Your task to perform on an android device: open app "ZOOM Cloud Meetings" (install if not already installed) Image 0: 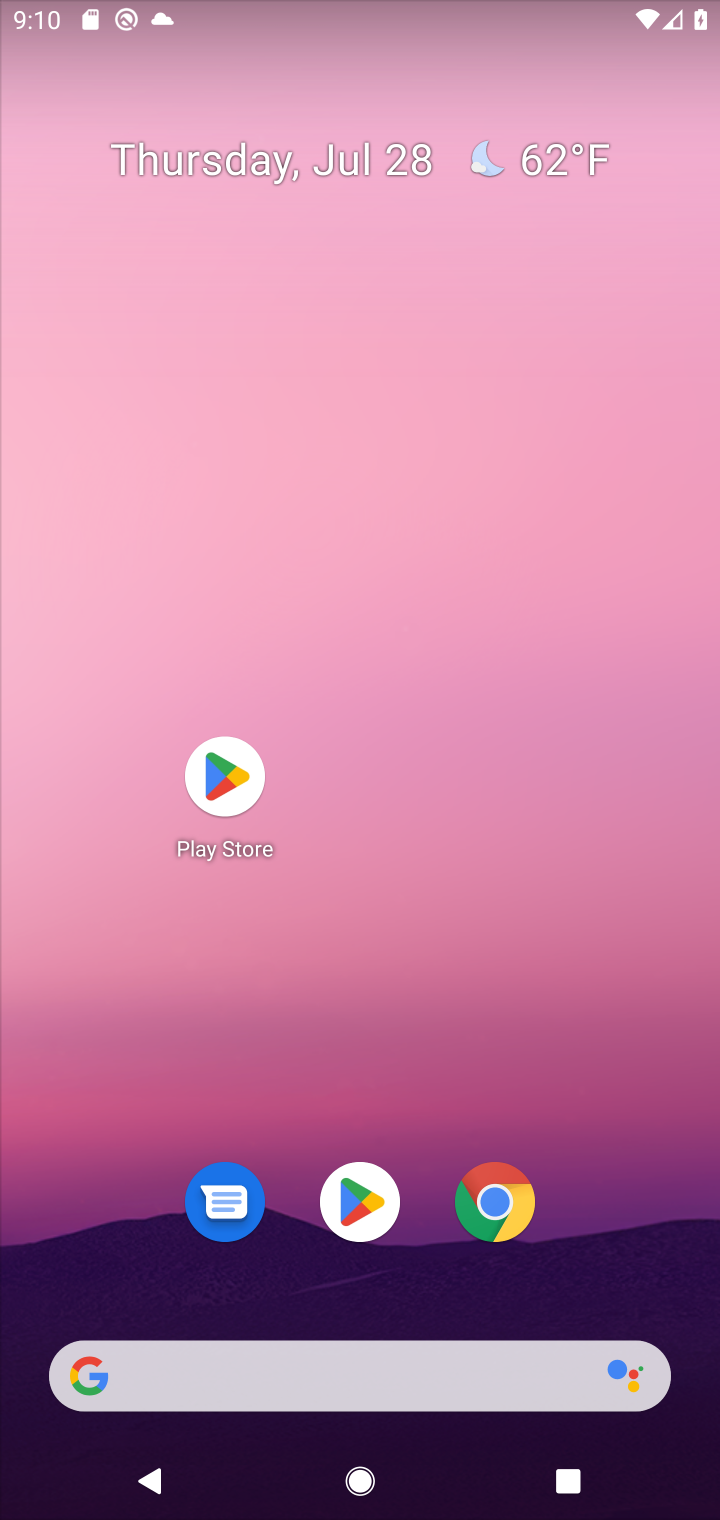
Step 0: click (349, 1199)
Your task to perform on an android device: open app "ZOOM Cloud Meetings" (install if not already installed) Image 1: 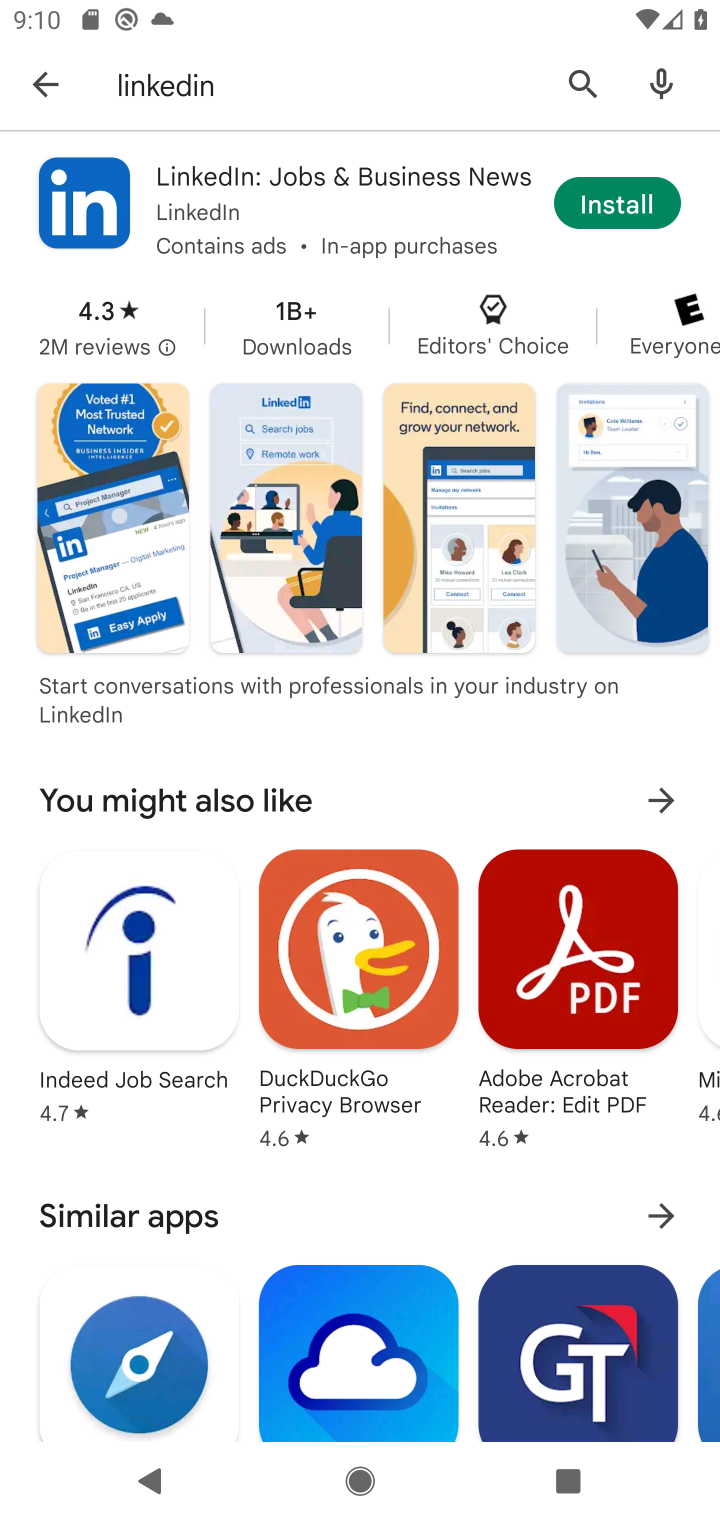
Step 1: click (578, 80)
Your task to perform on an android device: open app "ZOOM Cloud Meetings" (install if not already installed) Image 2: 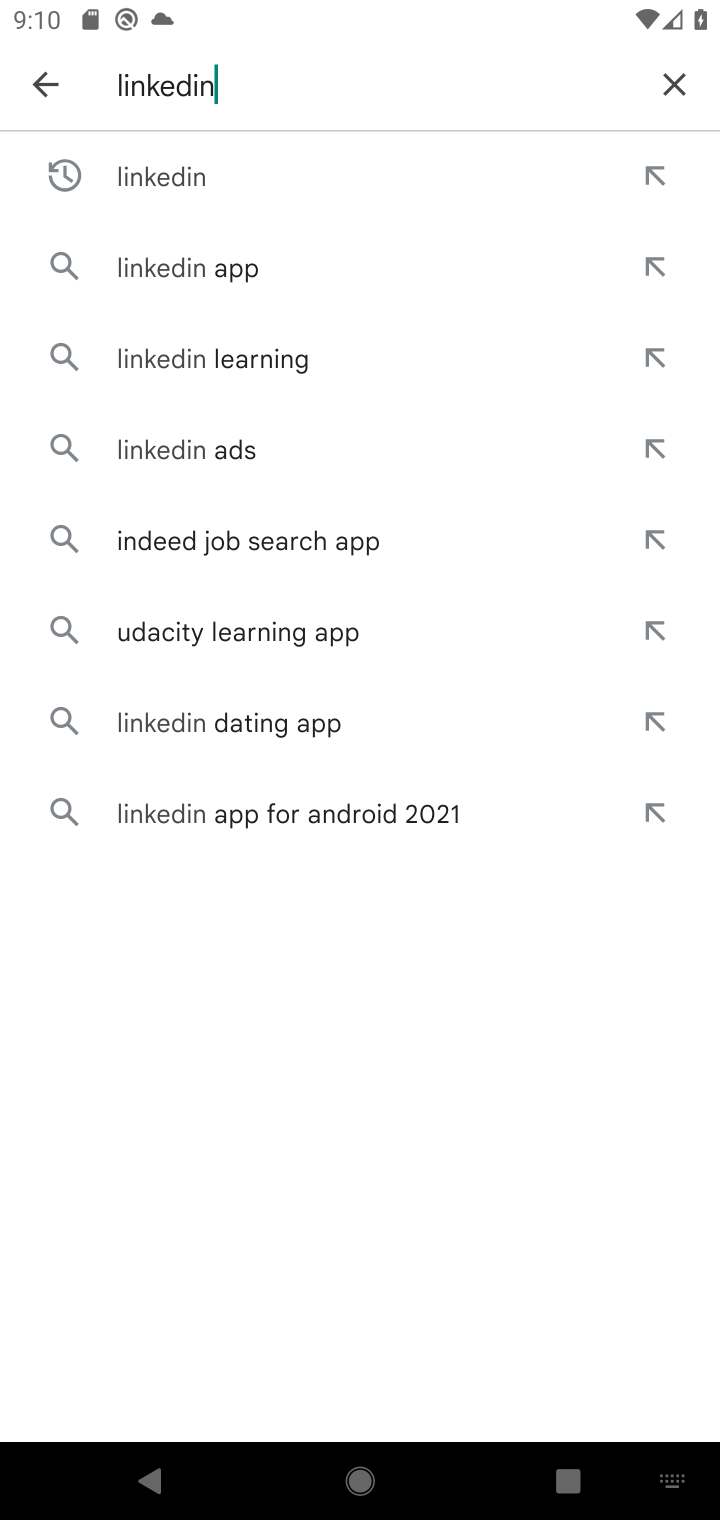
Step 2: click (673, 89)
Your task to perform on an android device: open app "ZOOM Cloud Meetings" (install if not already installed) Image 3: 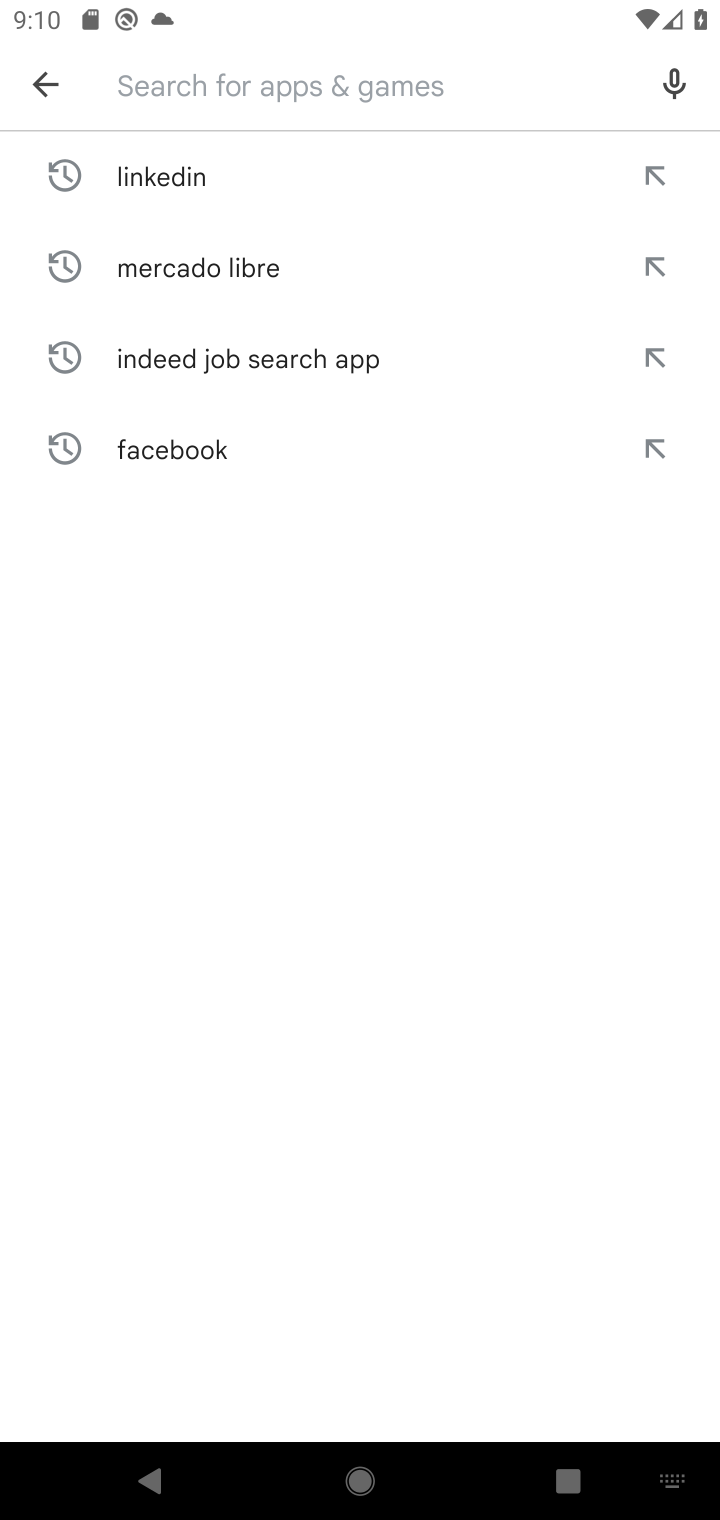
Step 3: click (144, 77)
Your task to perform on an android device: open app "ZOOM Cloud Meetings" (install if not already installed) Image 4: 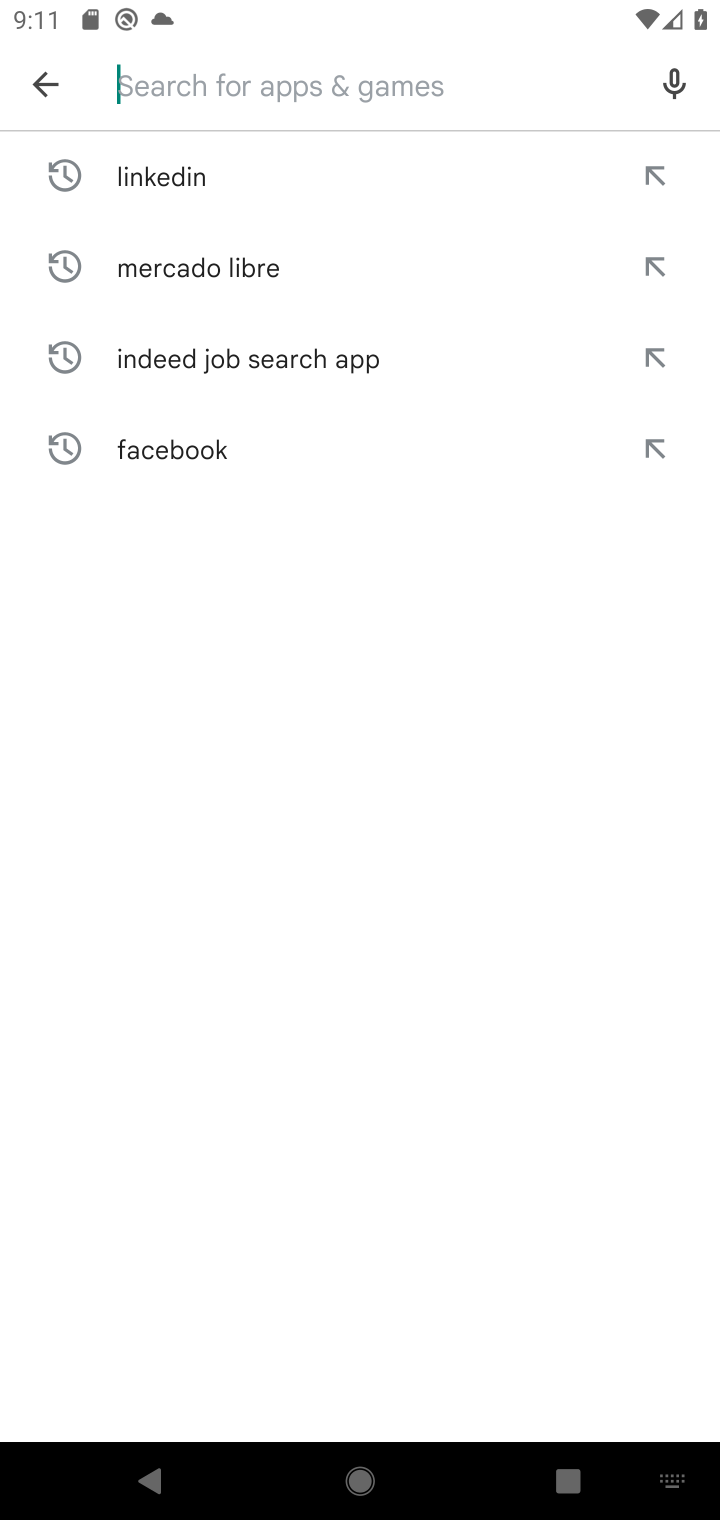
Step 4: type "zoom cloud meetings"
Your task to perform on an android device: open app "ZOOM Cloud Meetings" (install if not already installed) Image 5: 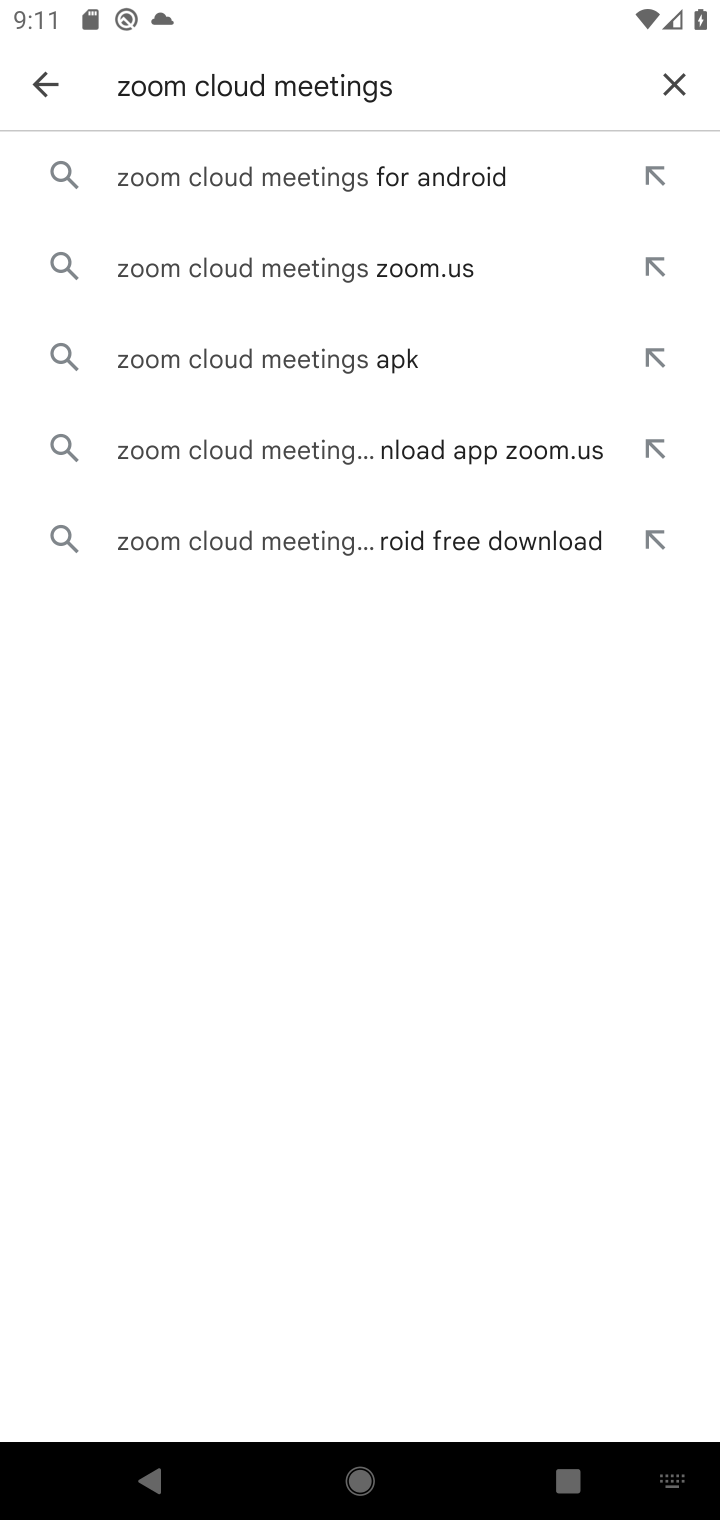
Step 5: click (298, 175)
Your task to perform on an android device: open app "ZOOM Cloud Meetings" (install if not already installed) Image 6: 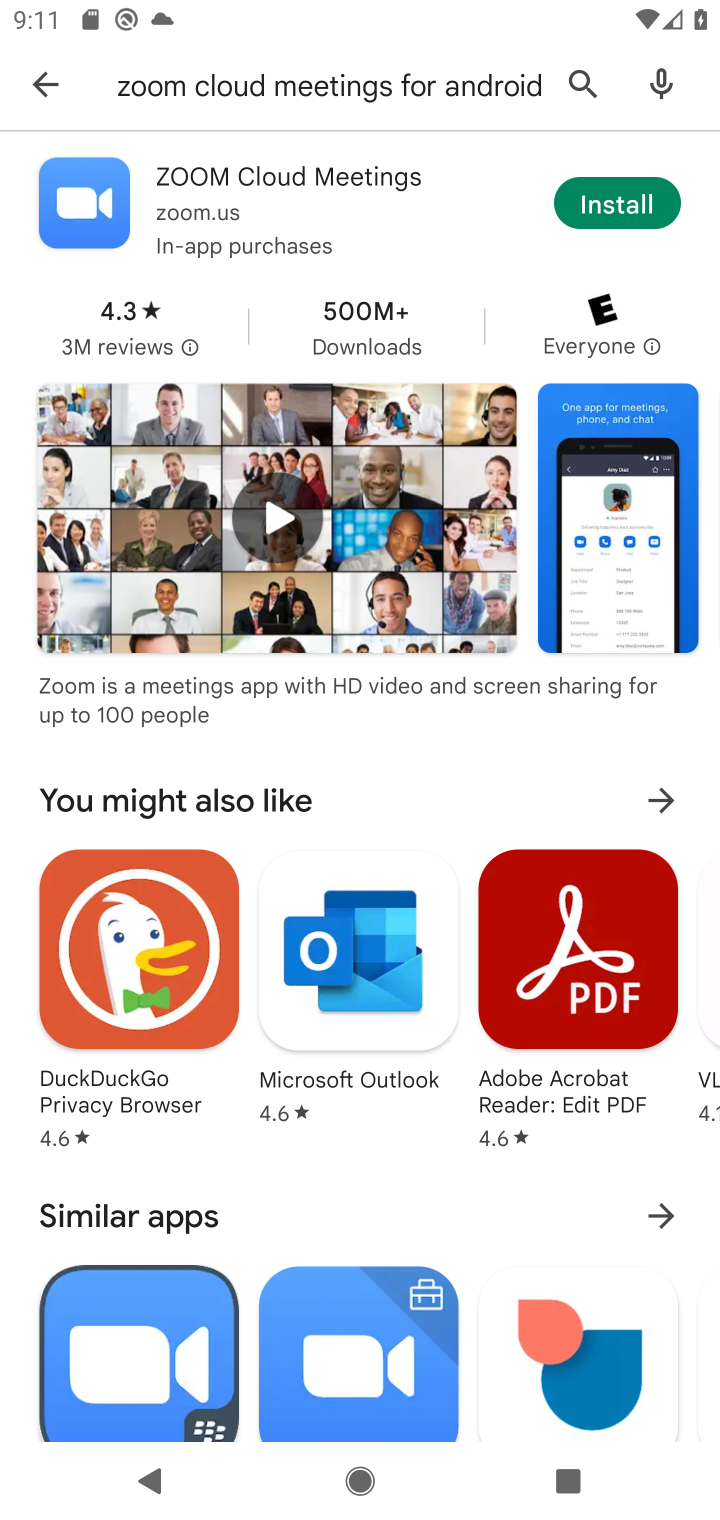
Step 6: click (608, 200)
Your task to perform on an android device: open app "ZOOM Cloud Meetings" (install if not already installed) Image 7: 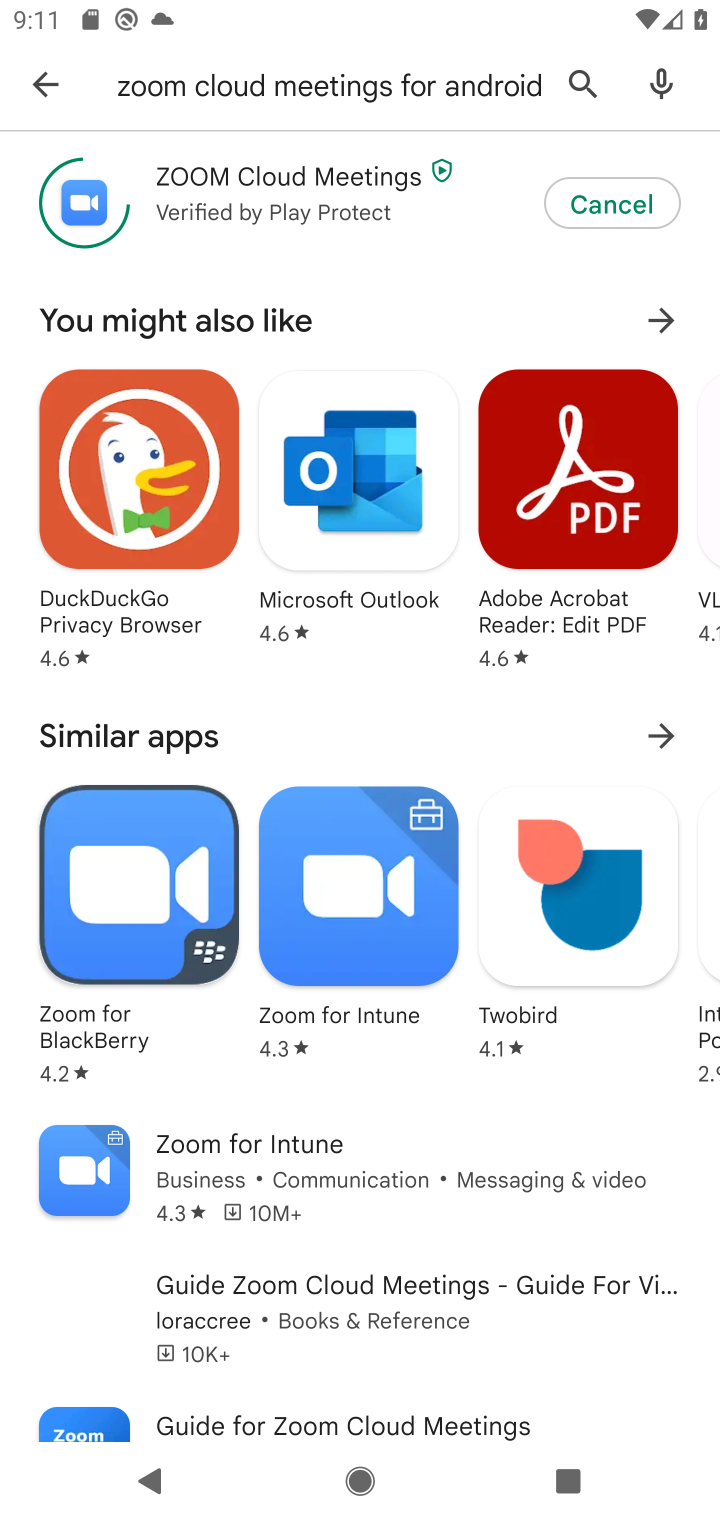
Step 7: click (608, 200)
Your task to perform on an android device: open app "ZOOM Cloud Meetings" (install if not already installed) Image 8: 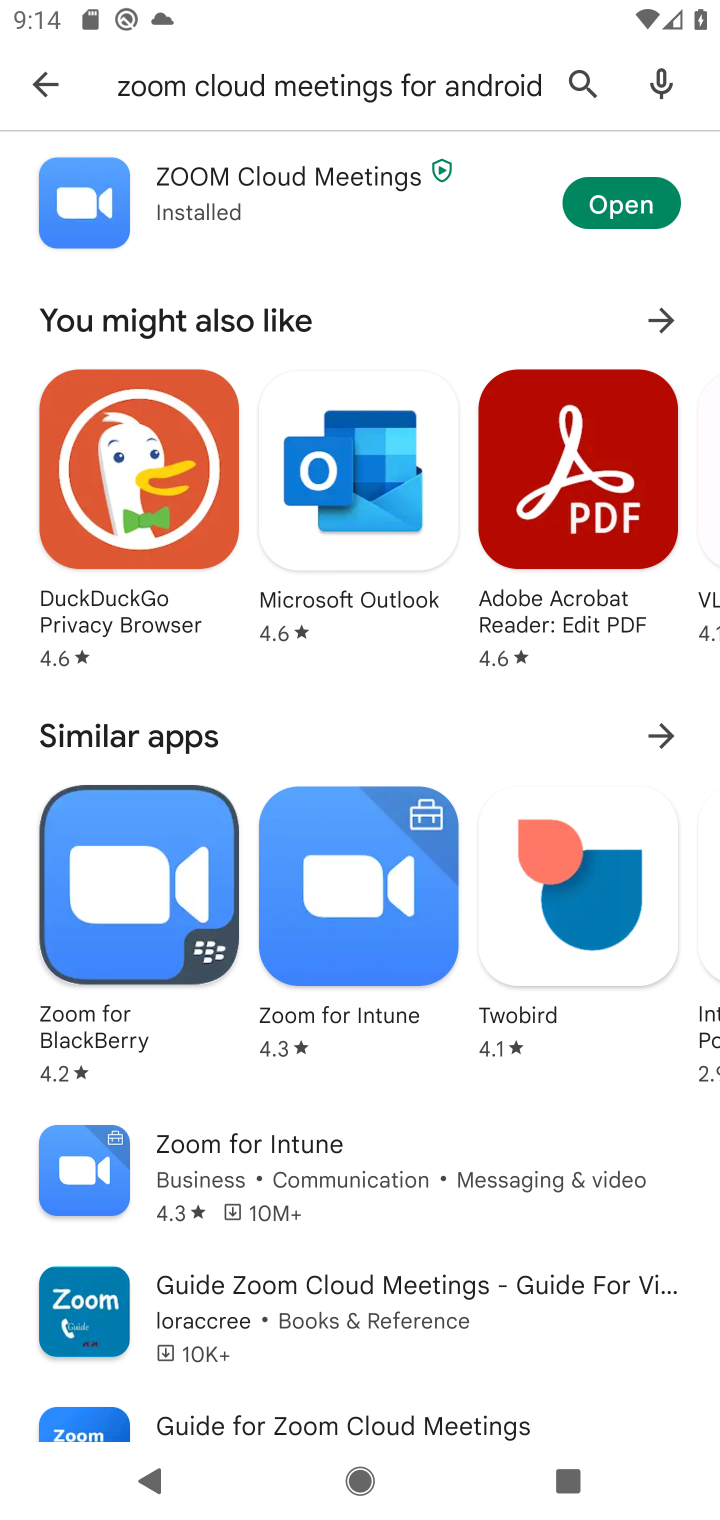
Step 8: click (625, 213)
Your task to perform on an android device: open app "ZOOM Cloud Meetings" (install if not already installed) Image 9: 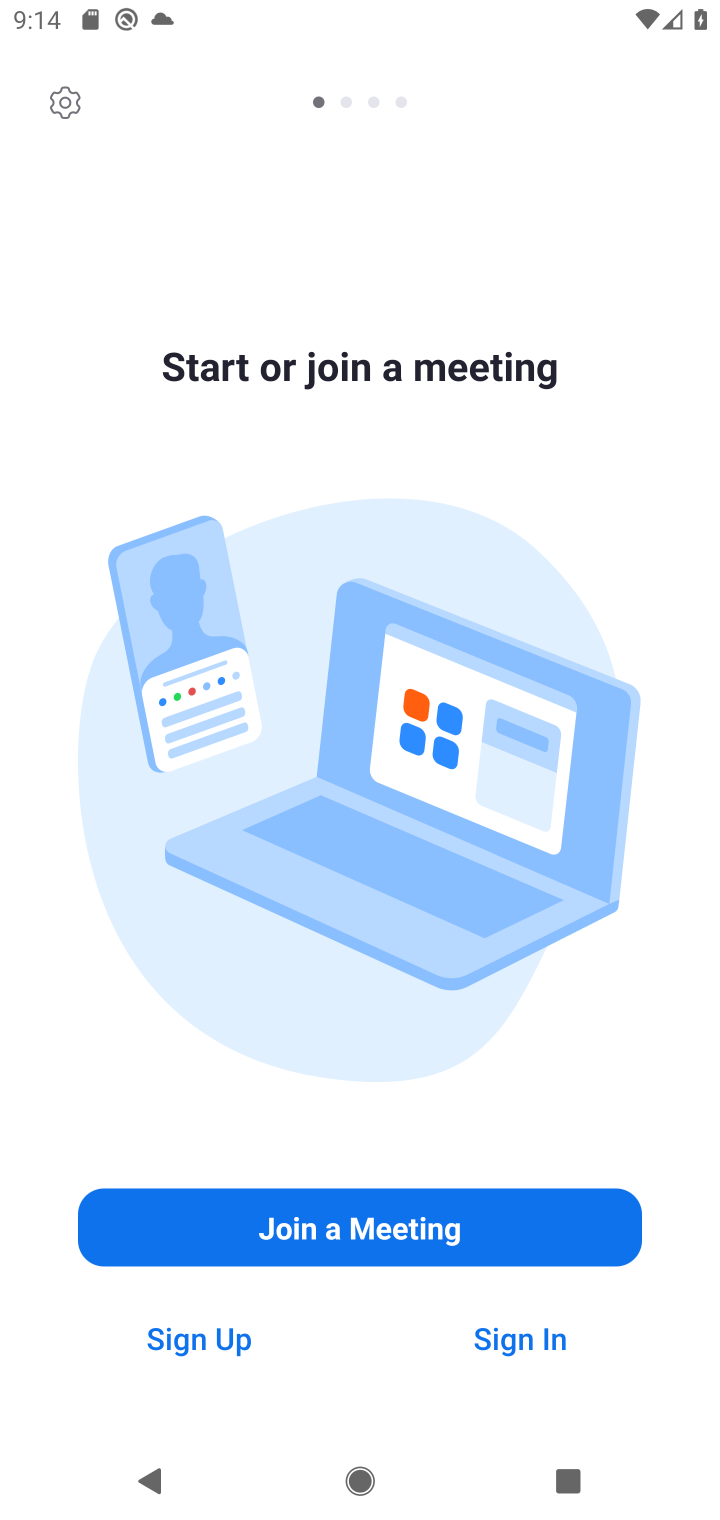
Step 9: task complete